Your task to perform on an android device: Go to battery settings Image 0: 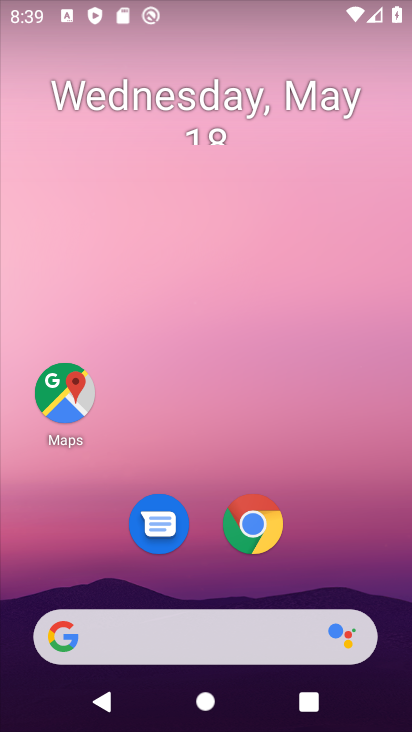
Step 0: drag from (280, 448) to (262, 58)
Your task to perform on an android device: Go to battery settings Image 1: 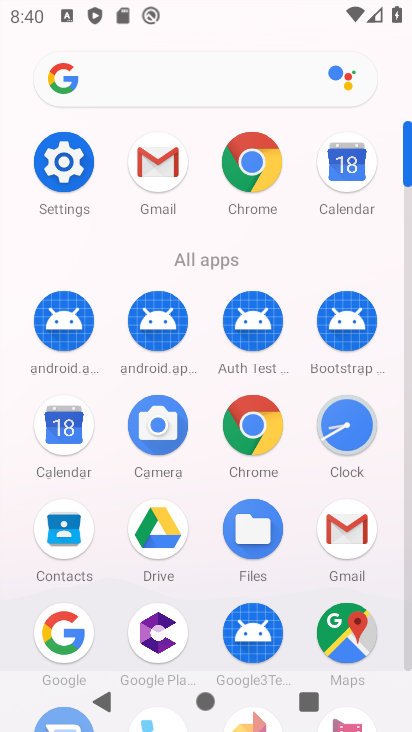
Step 1: click (72, 164)
Your task to perform on an android device: Go to battery settings Image 2: 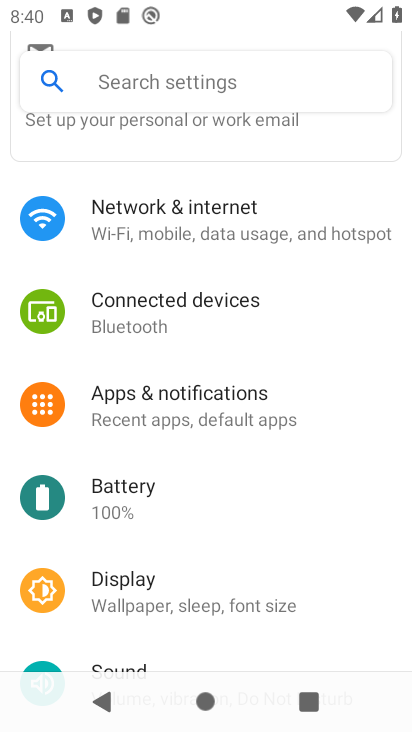
Step 2: drag from (206, 540) to (215, 362)
Your task to perform on an android device: Go to battery settings Image 3: 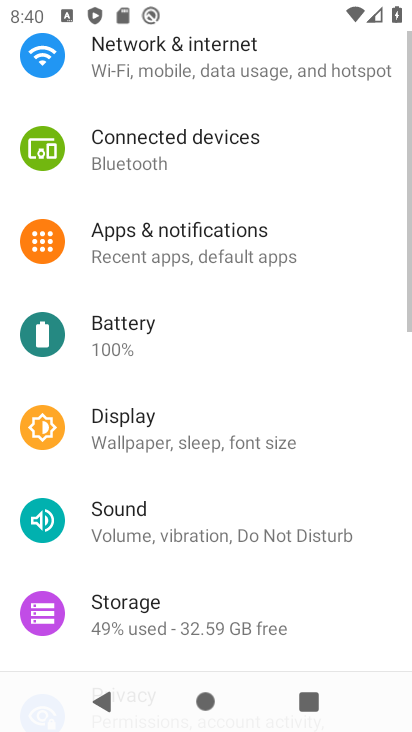
Step 3: click (215, 359)
Your task to perform on an android device: Go to battery settings Image 4: 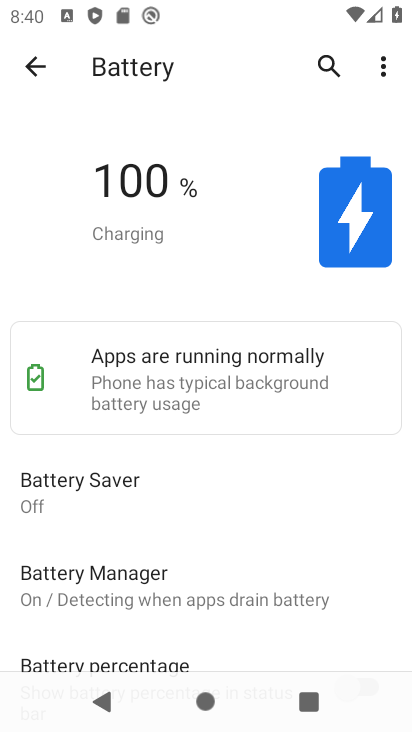
Step 4: task complete